Your task to perform on an android device: turn off smart reply in the gmail app Image 0: 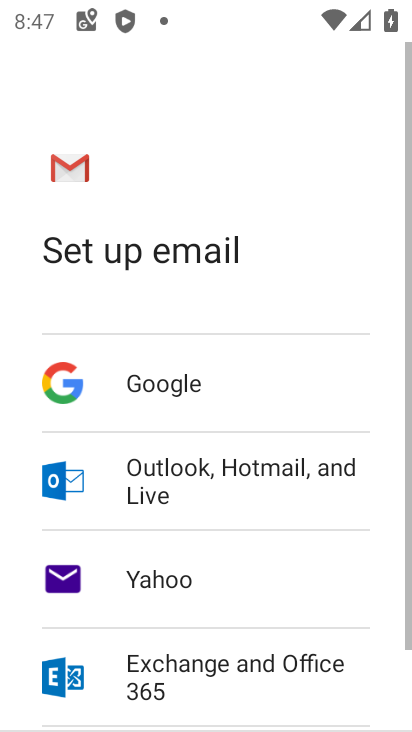
Step 0: press home button
Your task to perform on an android device: turn off smart reply in the gmail app Image 1: 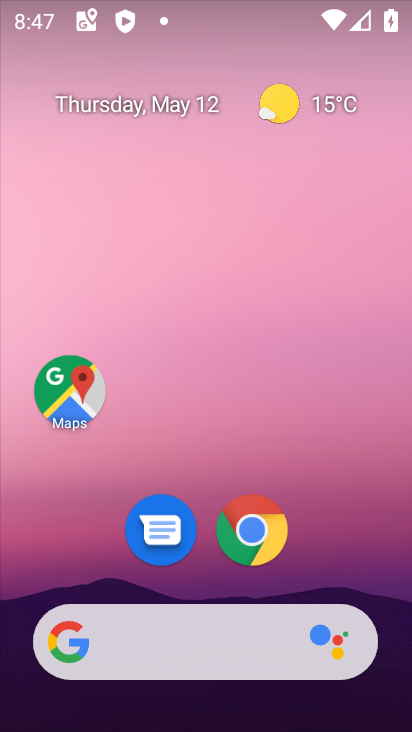
Step 1: drag from (252, 717) to (217, 55)
Your task to perform on an android device: turn off smart reply in the gmail app Image 2: 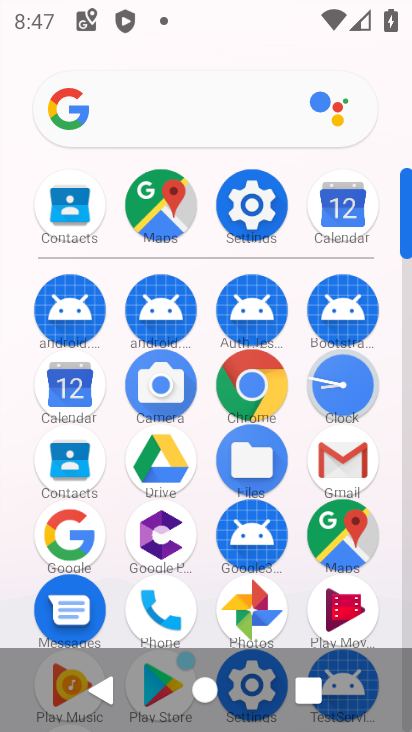
Step 2: click (351, 467)
Your task to perform on an android device: turn off smart reply in the gmail app Image 3: 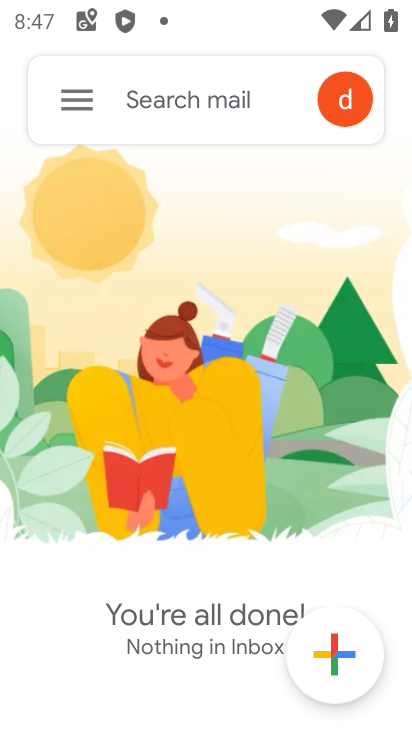
Step 3: click (74, 108)
Your task to perform on an android device: turn off smart reply in the gmail app Image 4: 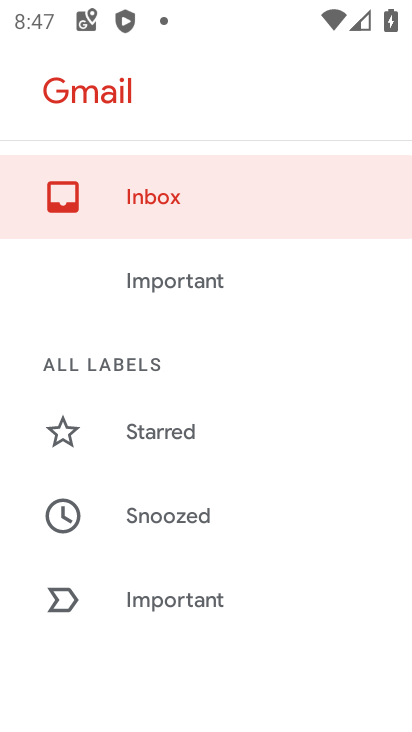
Step 4: drag from (153, 576) to (185, 12)
Your task to perform on an android device: turn off smart reply in the gmail app Image 5: 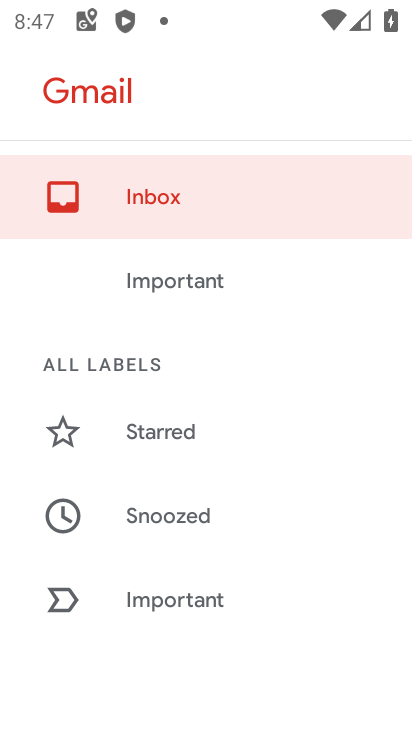
Step 5: drag from (236, 584) to (271, 45)
Your task to perform on an android device: turn off smart reply in the gmail app Image 6: 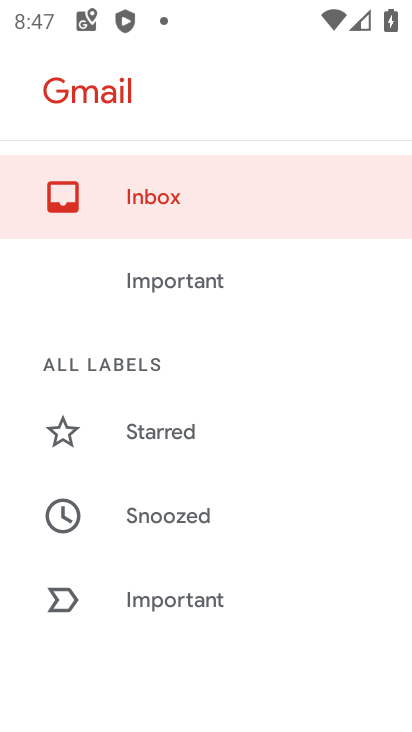
Step 6: drag from (132, 602) to (224, 99)
Your task to perform on an android device: turn off smart reply in the gmail app Image 7: 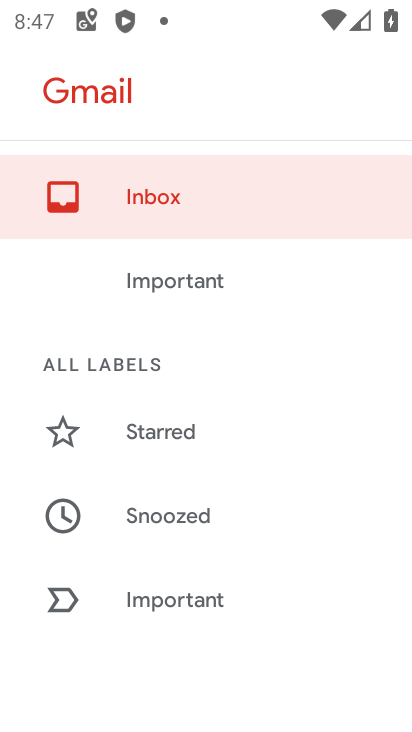
Step 7: drag from (211, 558) to (249, 78)
Your task to perform on an android device: turn off smart reply in the gmail app Image 8: 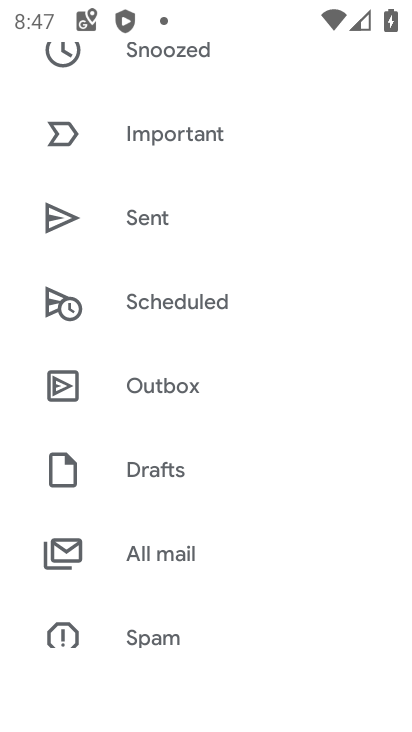
Step 8: drag from (176, 576) to (245, 41)
Your task to perform on an android device: turn off smart reply in the gmail app Image 9: 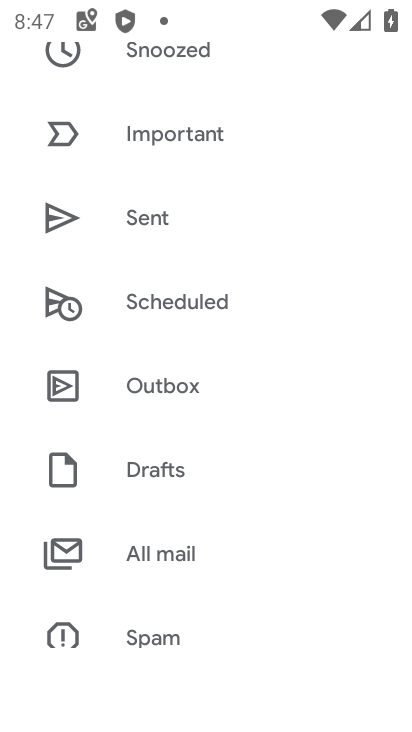
Step 9: drag from (196, 614) to (206, 113)
Your task to perform on an android device: turn off smart reply in the gmail app Image 10: 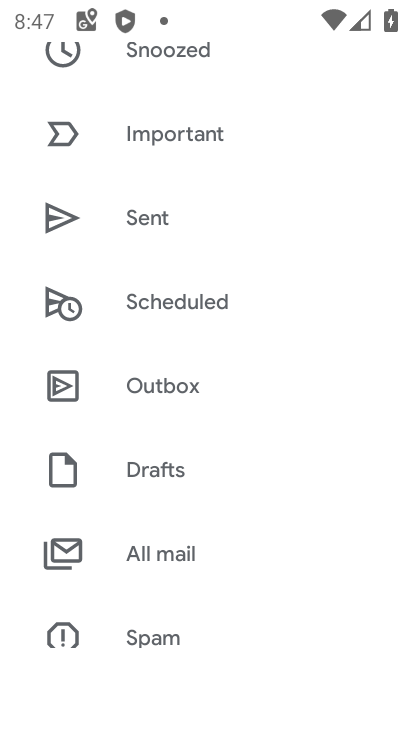
Step 10: drag from (110, 609) to (346, 20)
Your task to perform on an android device: turn off smart reply in the gmail app Image 11: 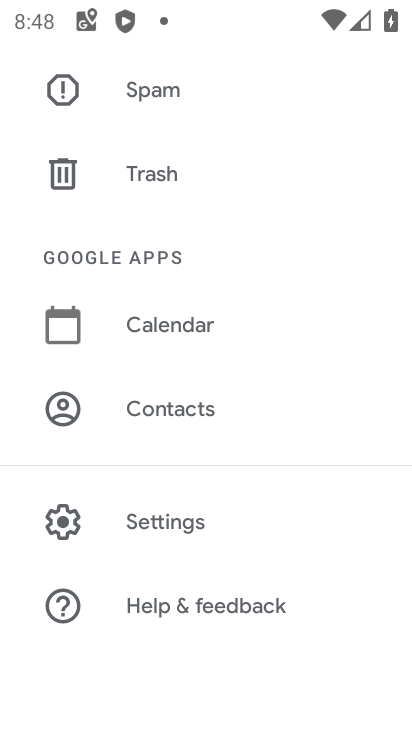
Step 11: click (177, 515)
Your task to perform on an android device: turn off smart reply in the gmail app Image 12: 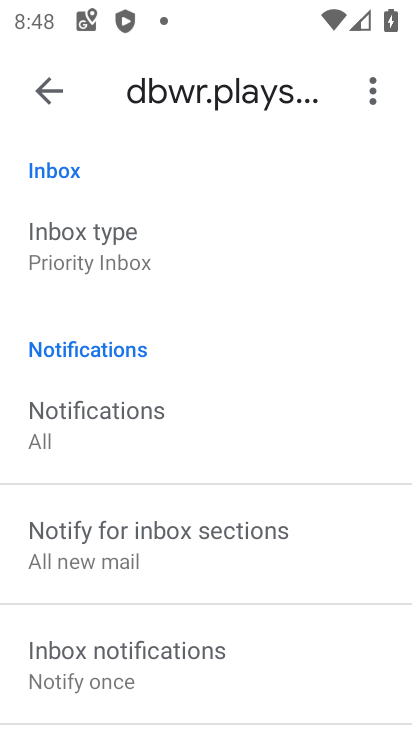
Step 12: drag from (229, 598) to (234, 170)
Your task to perform on an android device: turn off smart reply in the gmail app Image 13: 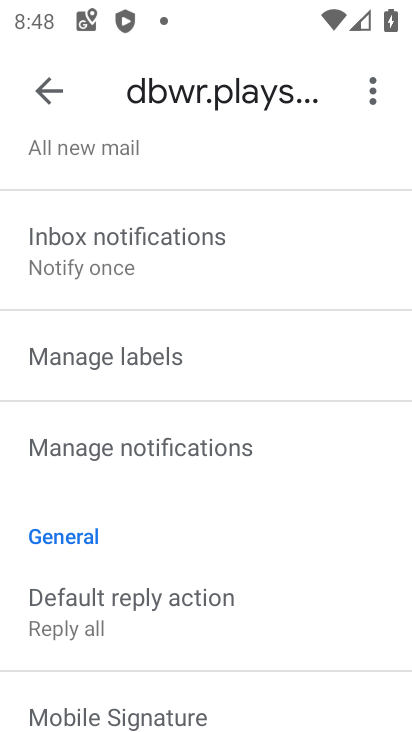
Step 13: drag from (232, 648) to (205, 190)
Your task to perform on an android device: turn off smart reply in the gmail app Image 14: 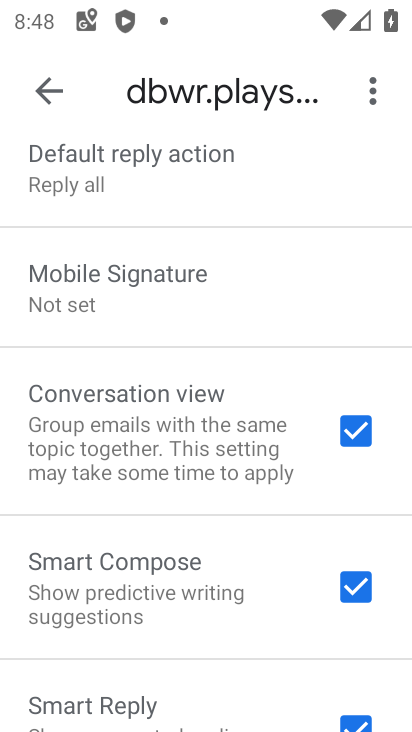
Step 14: drag from (274, 647) to (214, 326)
Your task to perform on an android device: turn off smart reply in the gmail app Image 15: 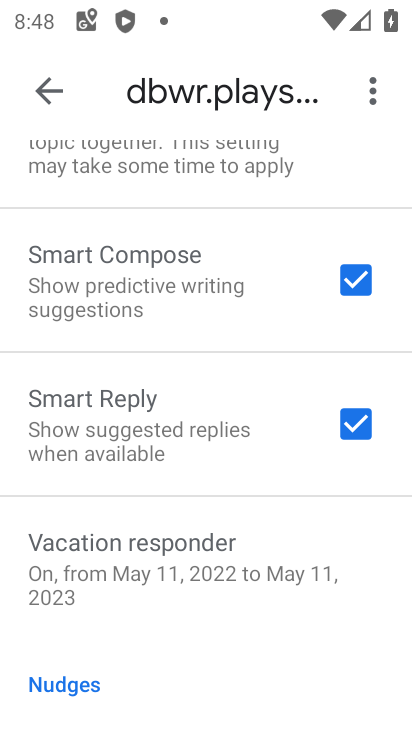
Step 15: click (354, 424)
Your task to perform on an android device: turn off smart reply in the gmail app Image 16: 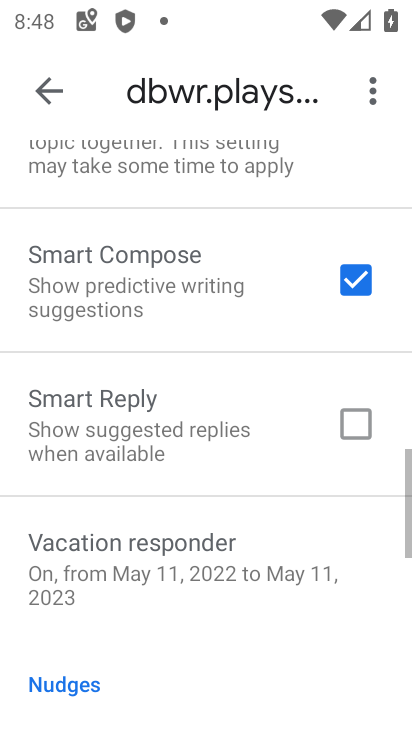
Step 16: task complete